Your task to perform on an android device: Go to accessibility settings Image 0: 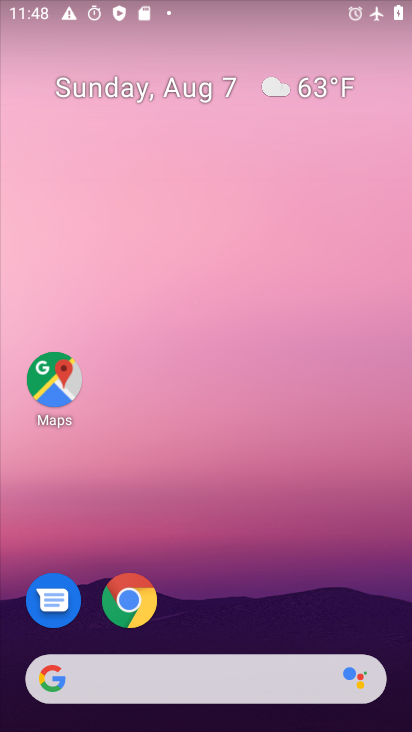
Step 0: drag from (240, 690) to (260, 4)
Your task to perform on an android device: Go to accessibility settings Image 1: 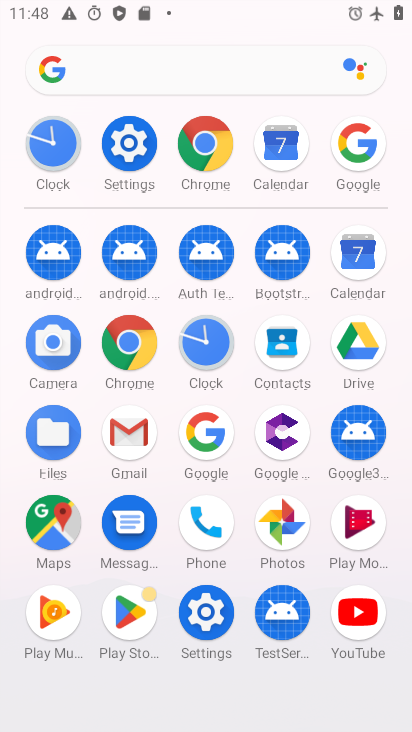
Step 1: click (128, 147)
Your task to perform on an android device: Go to accessibility settings Image 2: 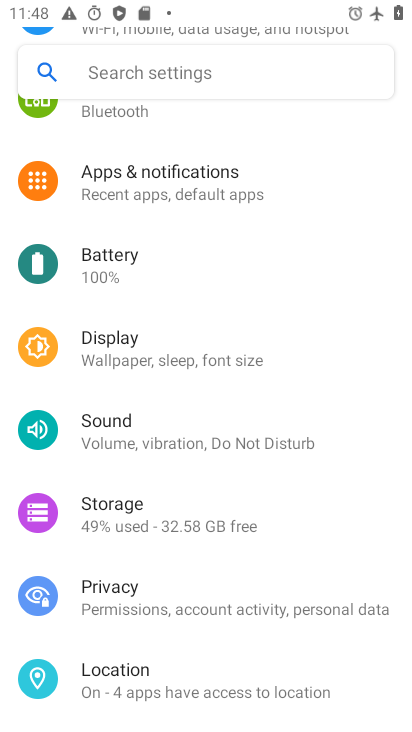
Step 2: drag from (154, 600) to (153, 285)
Your task to perform on an android device: Go to accessibility settings Image 3: 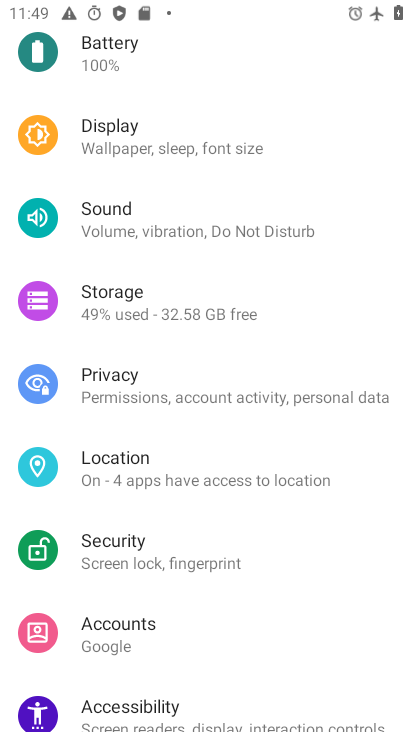
Step 3: drag from (149, 535) to (149, 222)
Your task to perform on an android device: Go to accessibility settings Image 4: 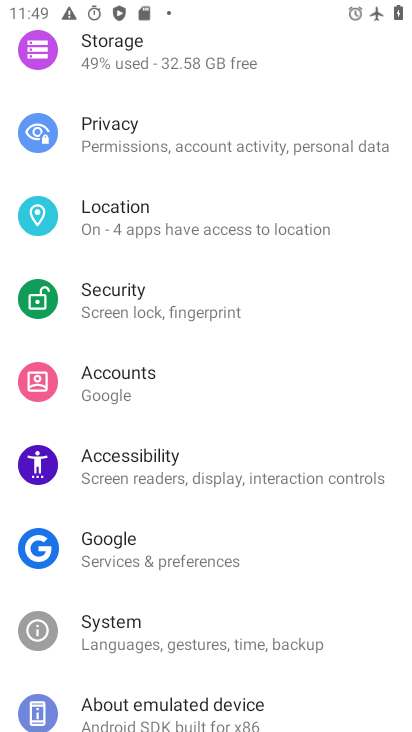
Step 4: click (168, 475)
Your task to perform on an android device: Go to accessibility settings Image 5: 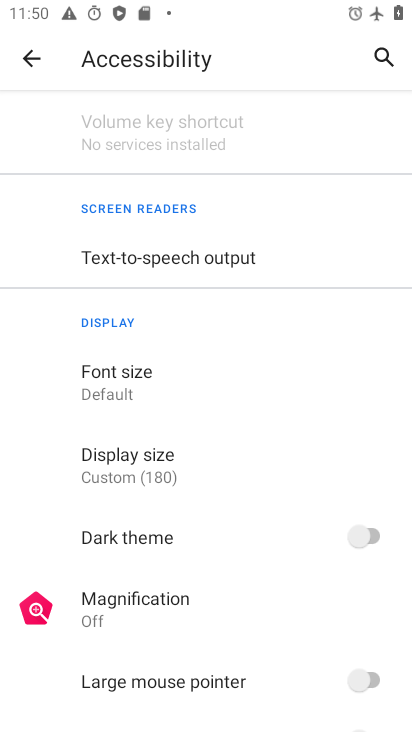
Step 5: task complete